Your task to perform on an android device: snooze an email in the gmail app Image 0: 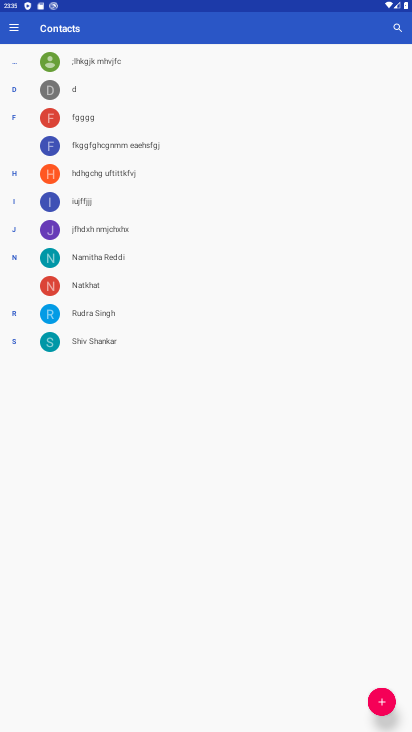
Step 0: press home button
Your task to perform on an android device: snooze an email in the gmail app Image 1: 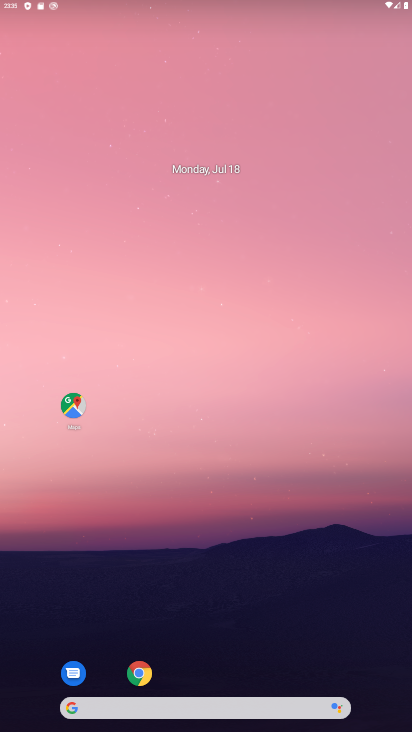
Step 1: drag from (96, 632) to (162, 222)
Your task to perform on an android device: snooze an email in the gmail app Image 2: 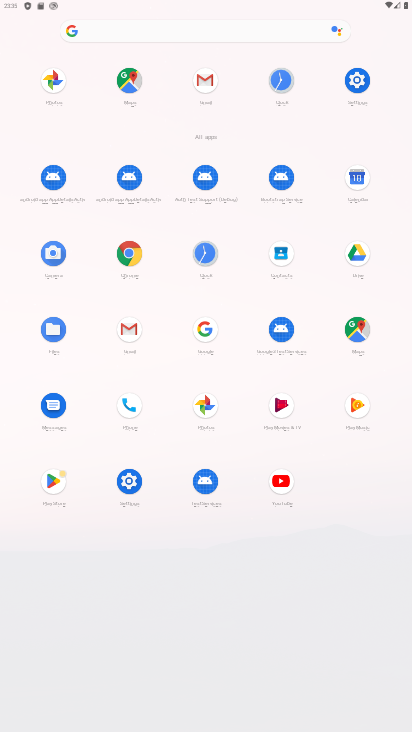
Step 2: click (125, 329)
Your task to perform on an android device: snooze an email in the gmail app Image 3: 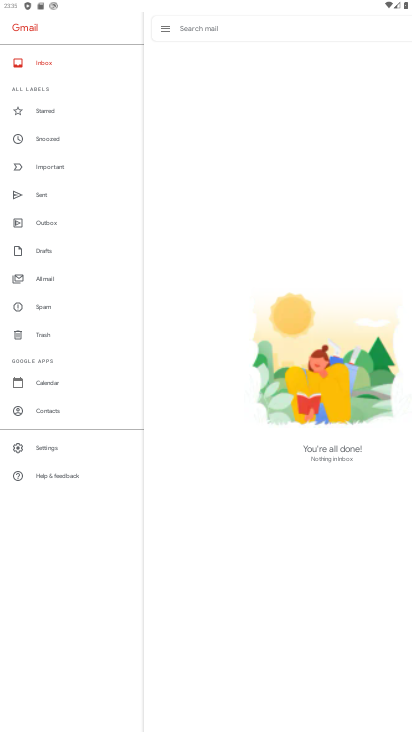
Step 3: click (57, 115)
Your task to perform on an android device: snooze an email in the gmail app Image 4: 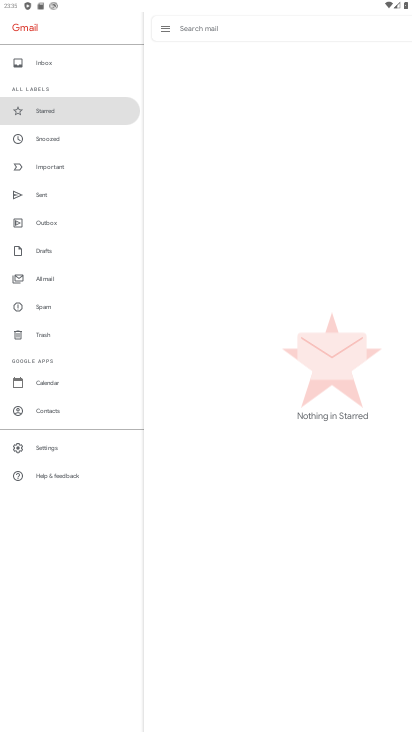
Step 4: click (53, 150)
Your task to perform on an android device: snooze an email in the gmail app Image 5: 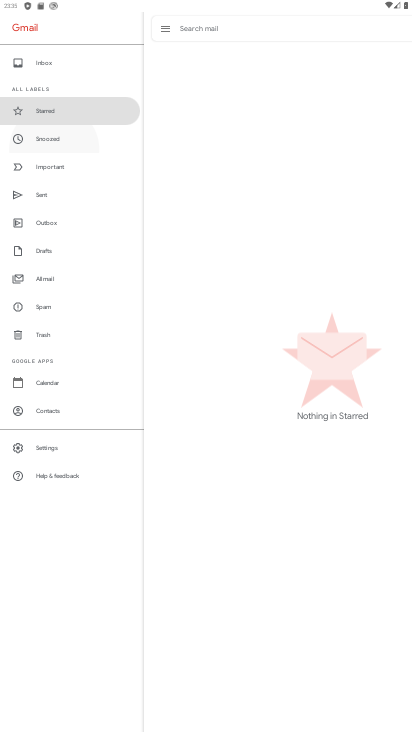
Step 5: click (53, 144)
Your task to perform on an android device: snooze an email in the gmail app Image 6: 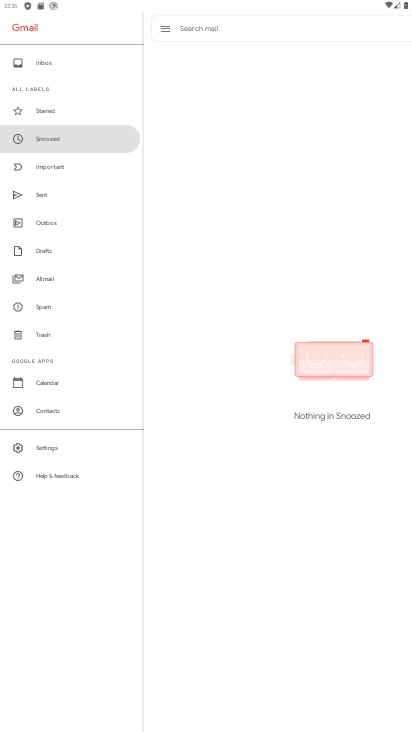
Step 6: task complete